Your task to perform on an android device: check android version Image 0: 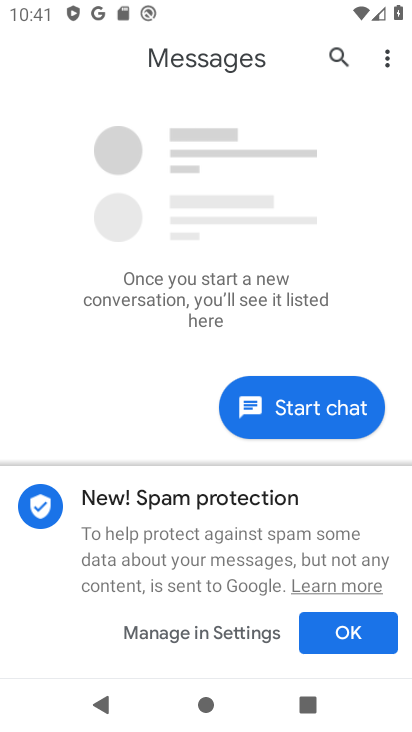
Step 0: press back button
Your task to perform on an android device: check android version Image 1: 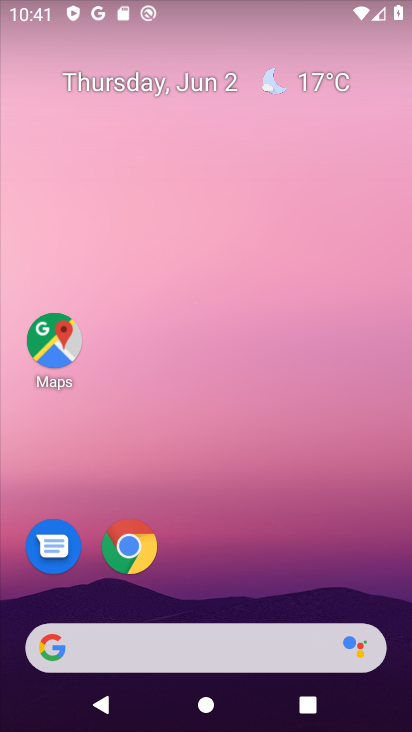
Step 1: drag from (237, 453) to (153, 7)
Your task to perform on an android device: check android version Image 2: 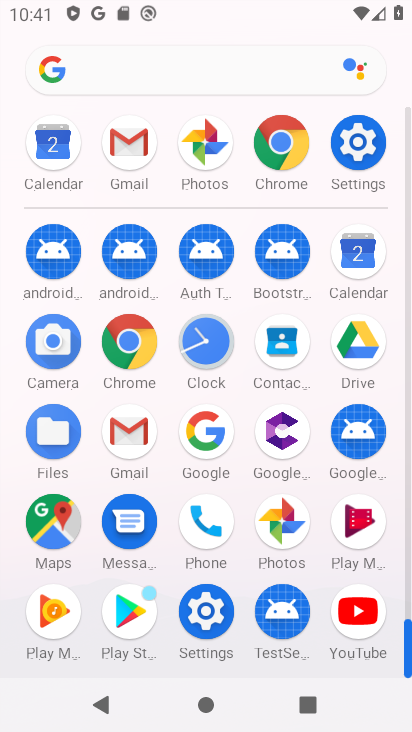
Step 2: drag from (14, 556) to (21, 265)
Your task to perform on an android device: check android version Image 3: 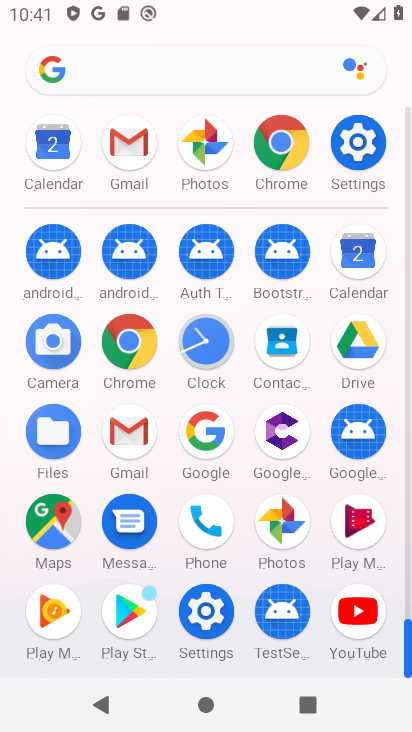
Step 3: click (205, 606)
Your task to perform on an android device: check android version Image 4: 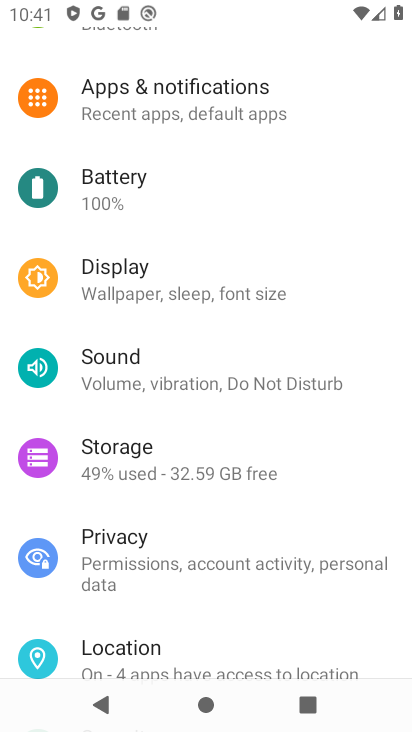
Step 4: drag from (308, 596) to (295, 150)
Your task to perform on an android device: check android version Image 5: 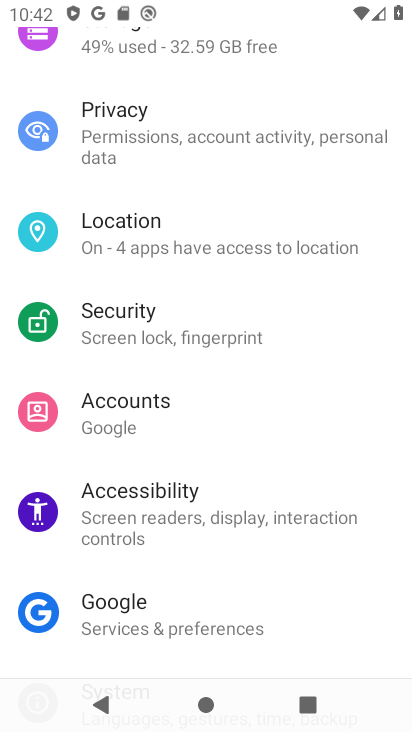
Step 5: drag from (198, 527) to (187, 199)
Your task to perform on an android device: check android version Image 6: 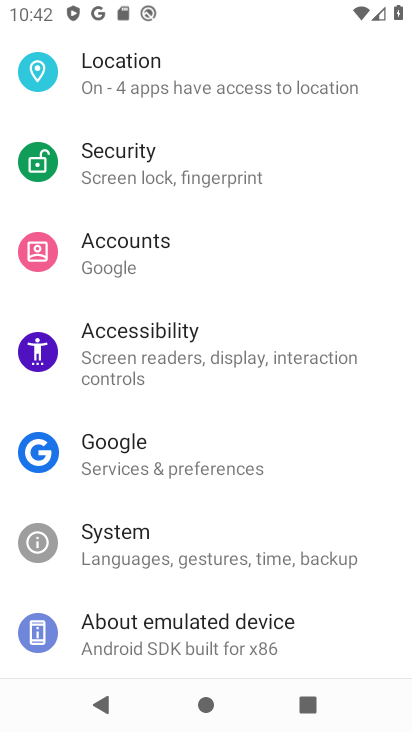
Step 6: click (190, 613)
Your task to perform on an android device: check android version Image 7: 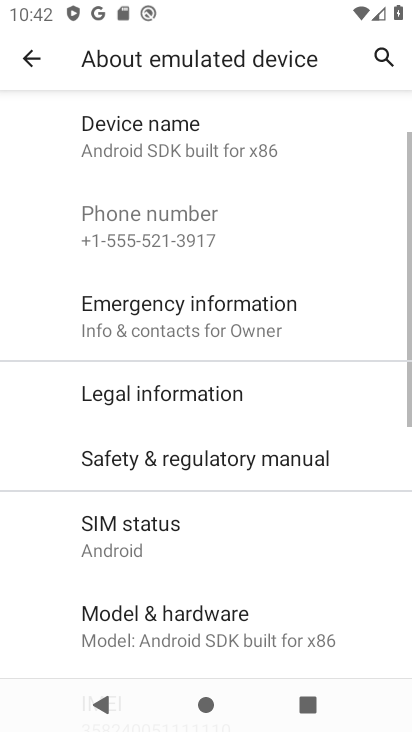
Step 7: drag from (291, 530) to (301, 109)
Your task to perform on an android device: check android version Image 8: 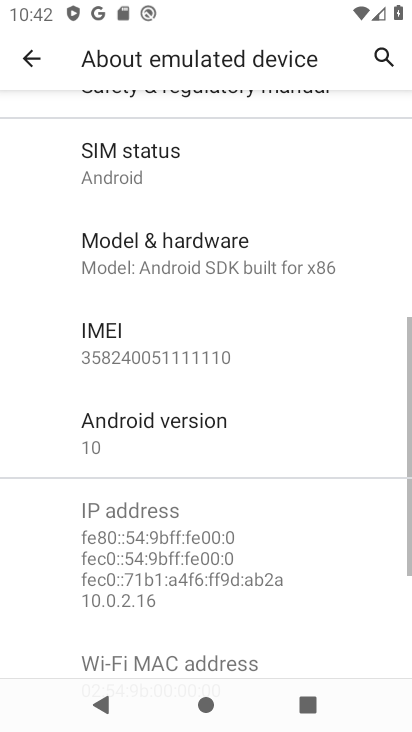
Step 8: click (316, 151)
Your task to perform on an android device: check android version Image 9: 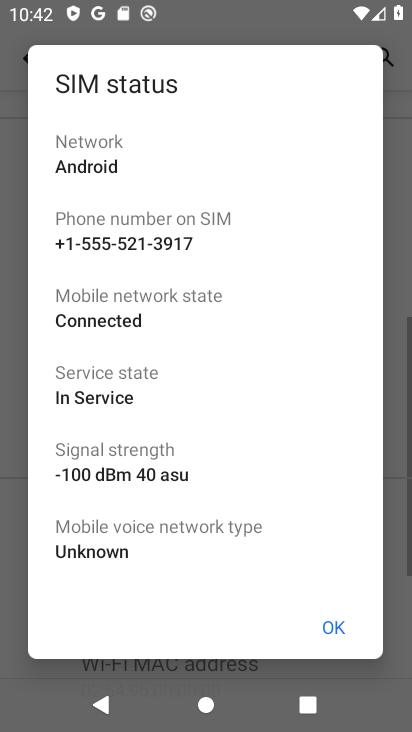
Step 9: click (338, 626)
Your task to perform on an android device: check android version Image 10: 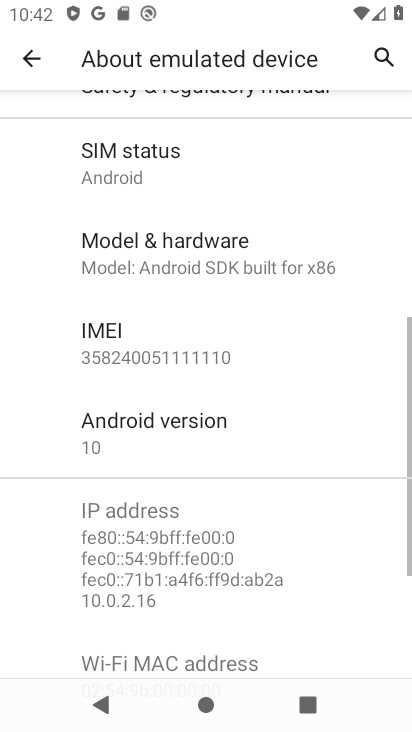
Step 10: task complete